Your task to perform on an android device: add a contact Image 0: 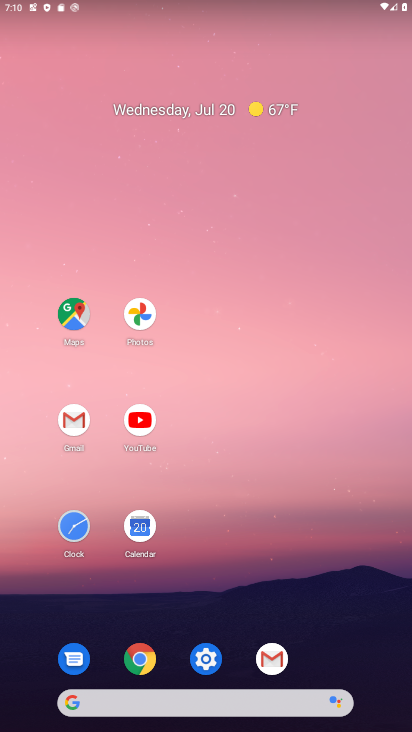
Step 0: drag from (268, 583) to (222, 115)
Your task to perform on an android device: add a contact Image 1: 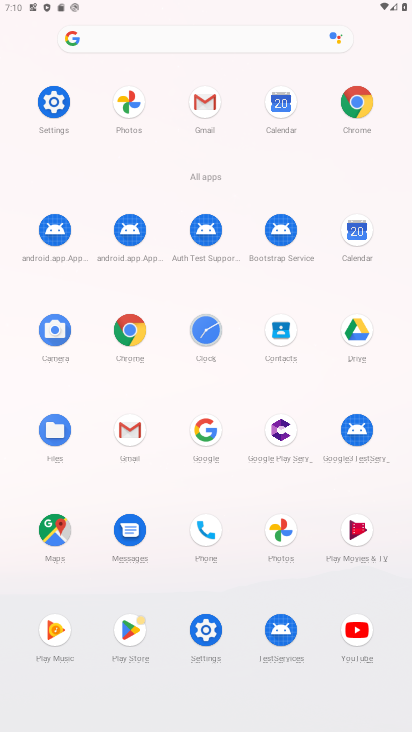
Step 1: click (283, 336)
Your task to perform on an android device: add a contact Image 2: 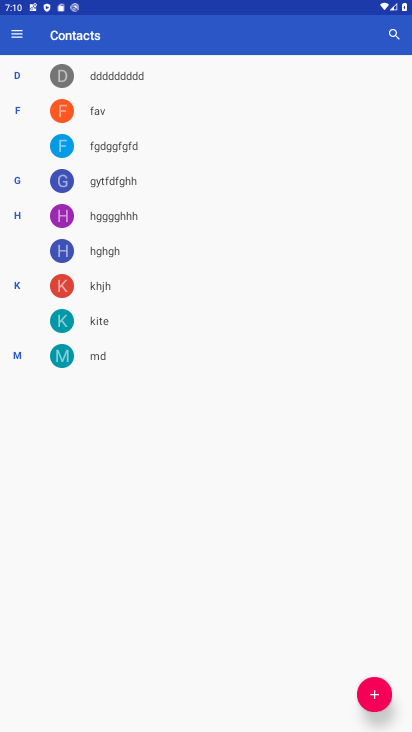
Step 2: click (373, 691)
Your task to perform on an android device: add a contact Image 3: 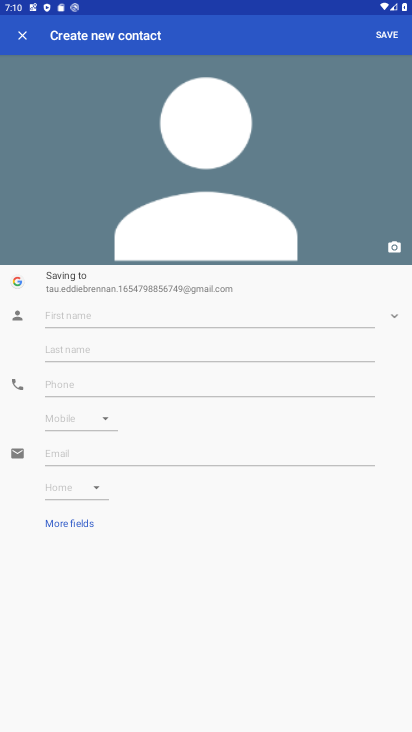
Step 3: click (67, 315)
Your task to perform on an android device: add a contact Image 4: 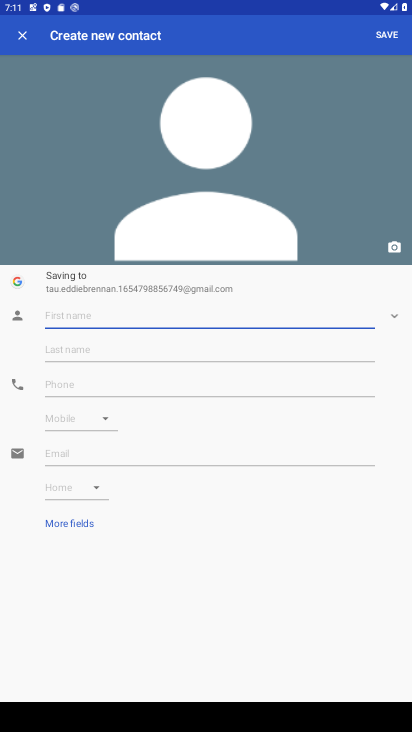
Step 4: type "kjgfdsdfghj"
Your task to perform on an android device: add a contact Image 5: 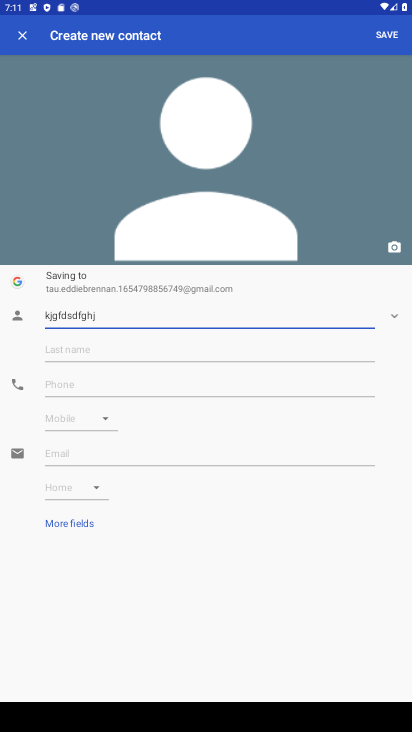
Step 5: click (111, 371)
Your task to perform on an android device: add a contact Image 6: 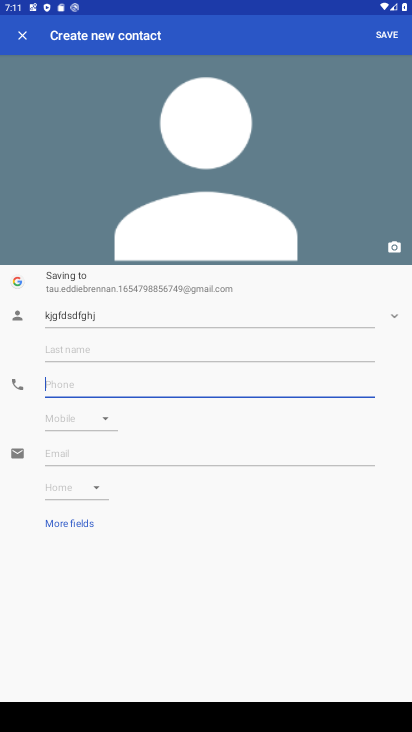
Step 6: type "98765432345678"
Your task to perform on an android device: add a contact Image 7: 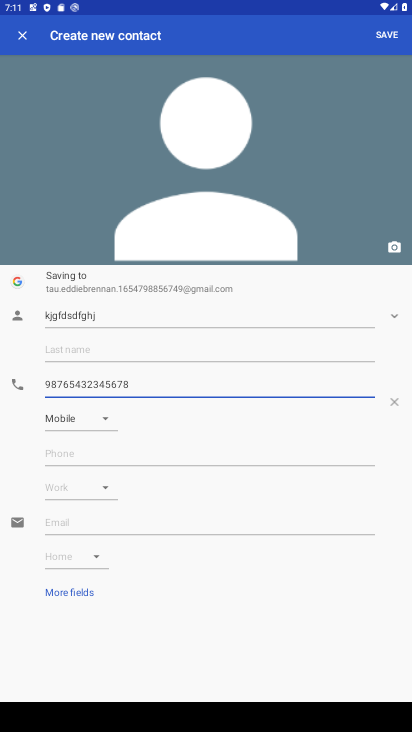
Step 7: click (385, 32)
Your task to perform on an android device: add a contact Image 8: 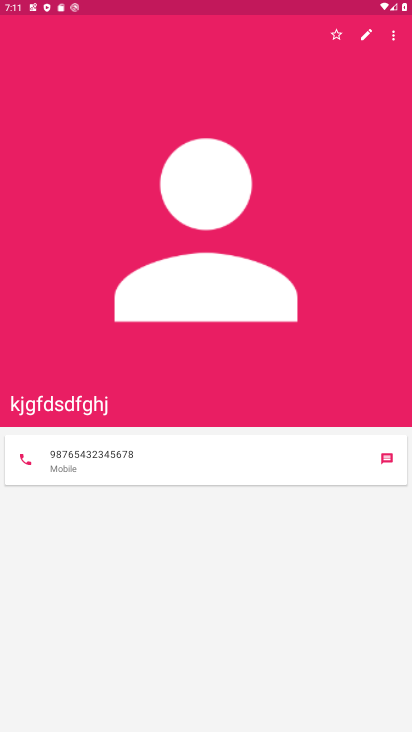
Step 8: task complete